Your task to perform on an android device: Open accessibility settings Image 0: 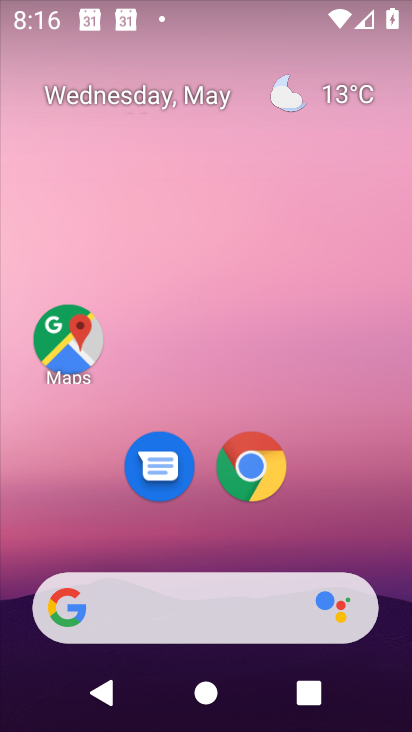
Step 0: drag from (207, 534) to (200, 72)
Your task to perform on an android device: Open accessibility settings Image 1: 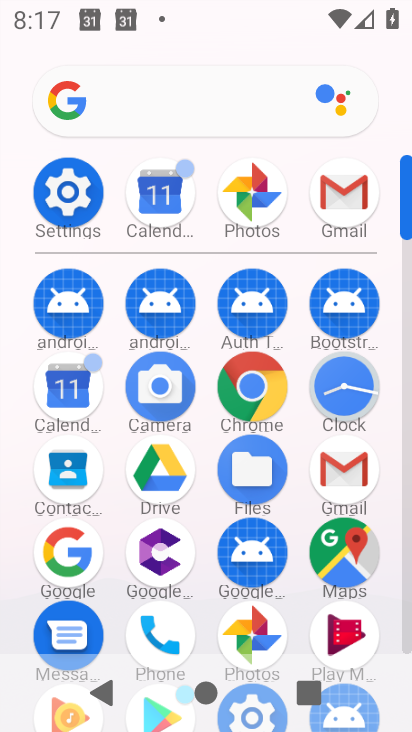
Step 1: click (57, 198)
Your task to perform on an android device: Open accessibility settings Image 2: 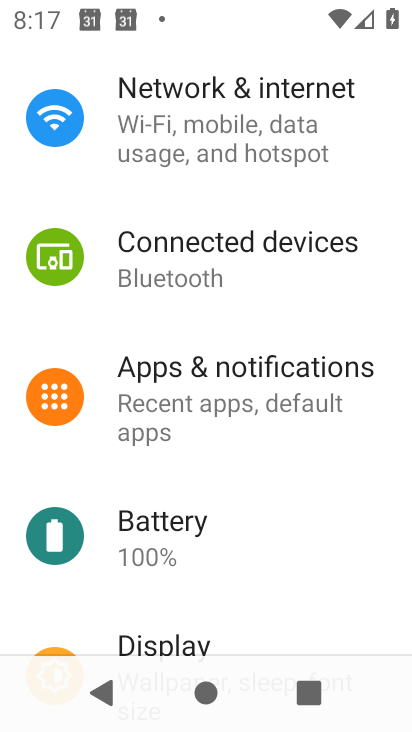
Step 2: drag from (193, 620) to (224, 55)
Your task to perform on an android device: Open accessibility settings Image 3: 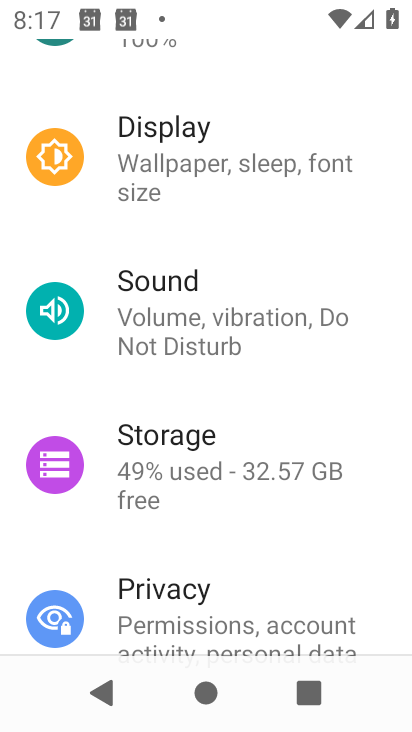
Step 3: drag from (228, 643) to (270, 5)
Your task to perform on an android device: Open accessibility settings Image 4: 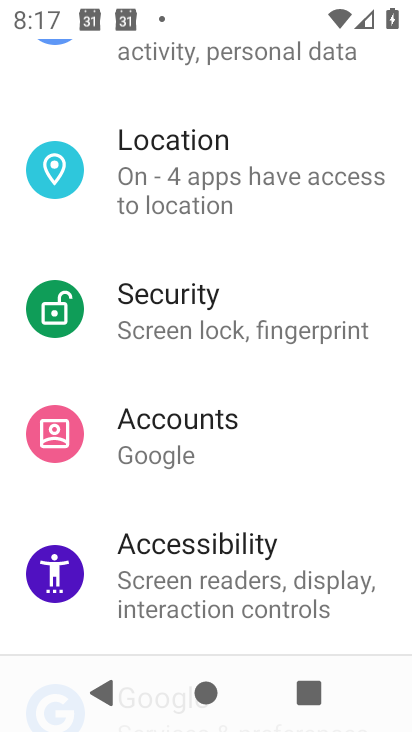
Step 4: click (209, 550)
Your task to perform on an android device: Open accessibility settings Image 5: 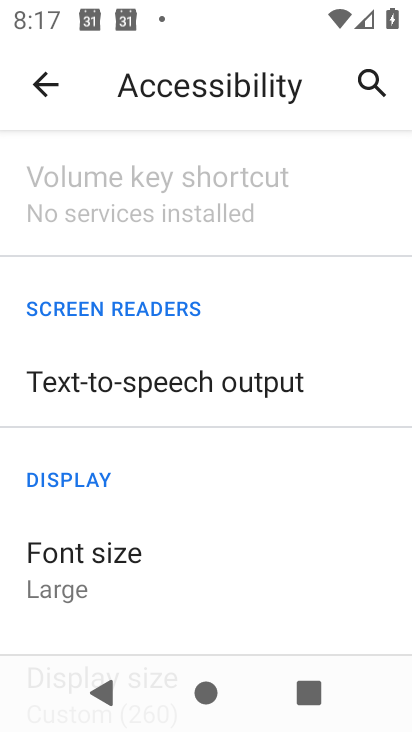
Step 5: task complete